Your task to perform on an android device: toggle pop-ups in chrome Image 0: 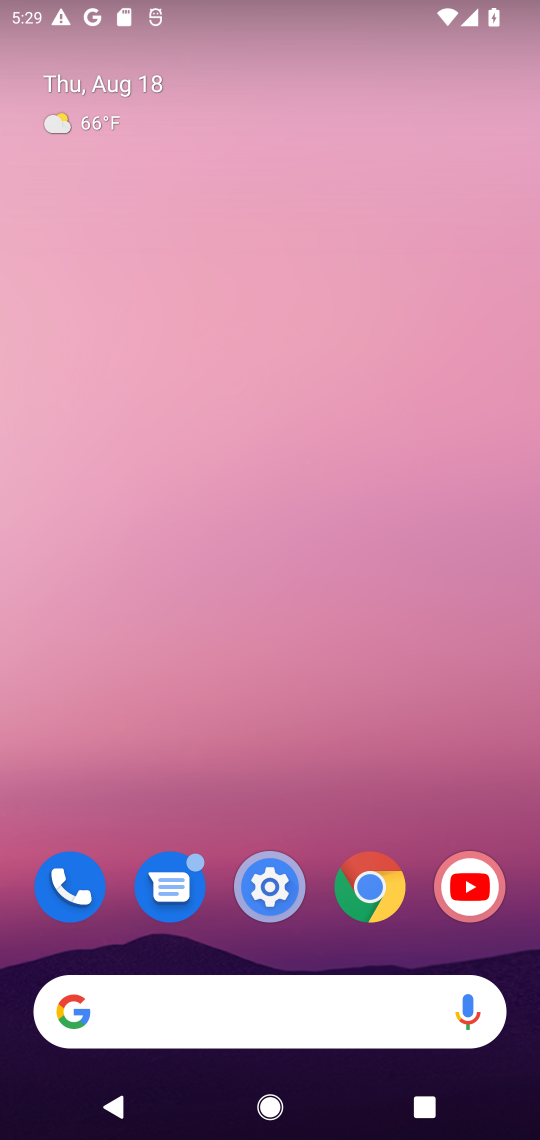
Step 0: click (379, 886)
Your task to perform on an android device: toggle pop-ups in chrome Image 1: 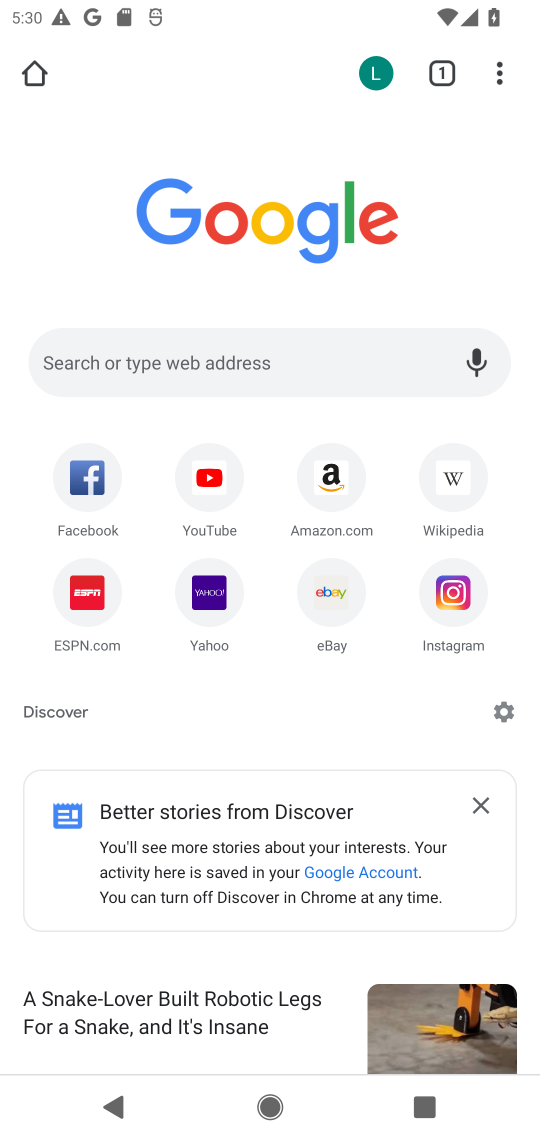
Step 1: task complete